Your task to perform on an android device: open the mobile data screen to see how much data has been used Image 0: 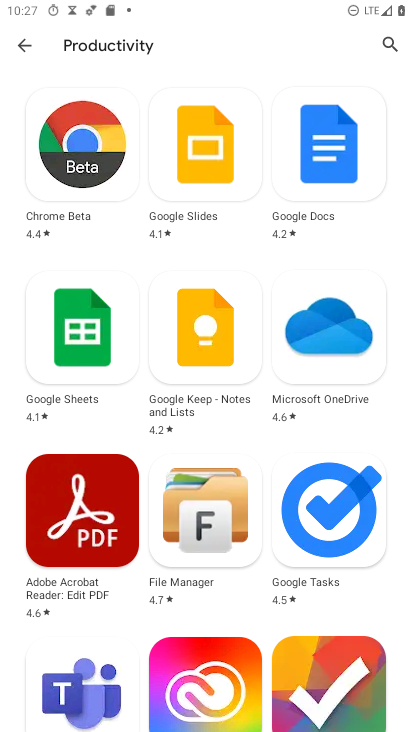
Step 0: press home button
Your task to perform on an android device: open the mobile data screen to see how much data has been used Image 1: 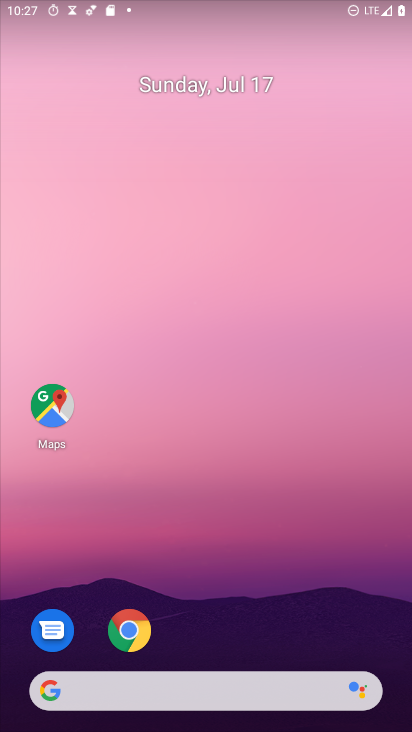
Step 1: drag from (262, 717) to (139, 11)
Your task to perform on an android device: open the mobile data screen to see how much data has been used Image 2: 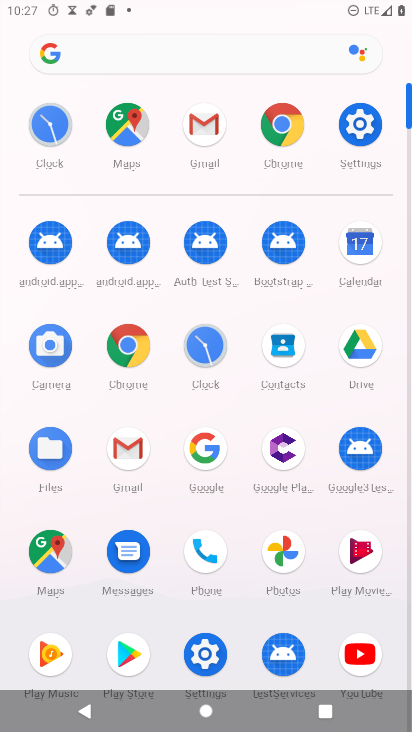
Step 2: click (358, 135)
Your task to perform on an android device: open the mobile data screen to see how much data has been used Image 3: 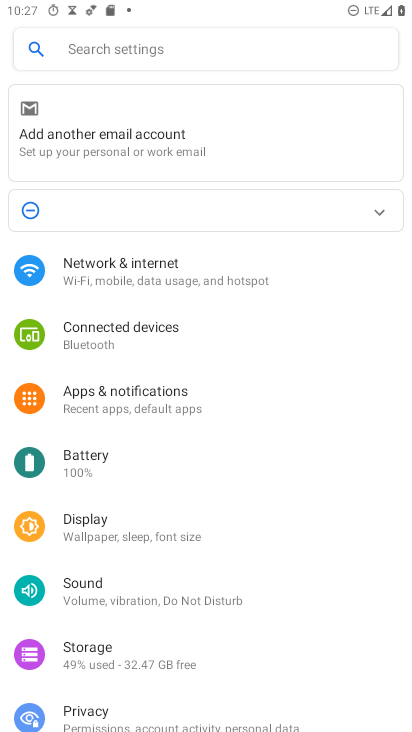
Step 3: click (174, 284)
Your task to perform on an android device: open the mobile data screen to see how much data has been used Image 4: 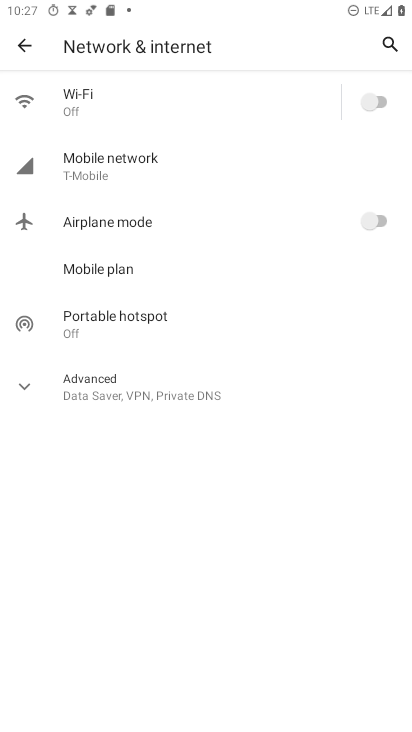
Step 4: click (137, 155)
Your task to perform on an android device: open the mobile data screen to see how much data has been used Image 5: 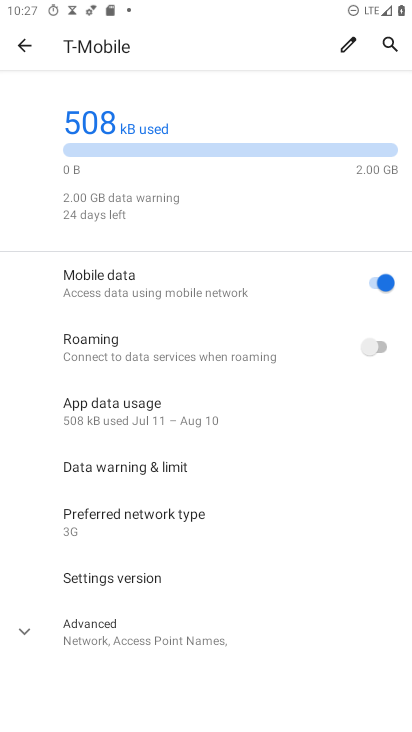
Step 5: task complete